Your task to perform on an android device: Open Google Image 0: 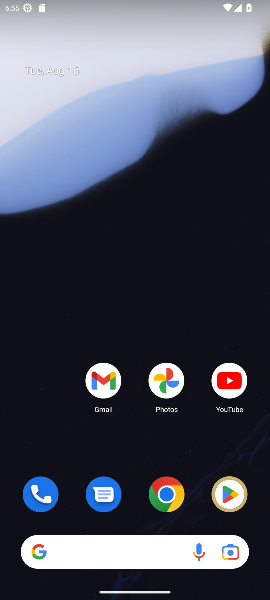
Step 0: click (133, 550)
Your task to perform on an android device: Open Google Image 1: 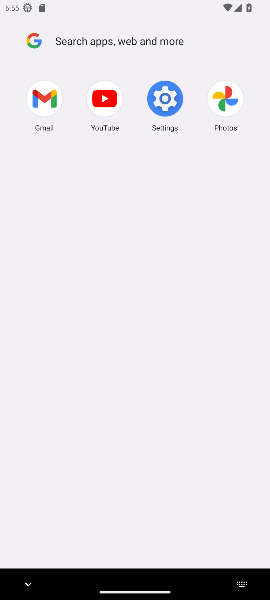
Step 1: task complete